Your task to perform on an android device: toggle airplane mode Image 0: 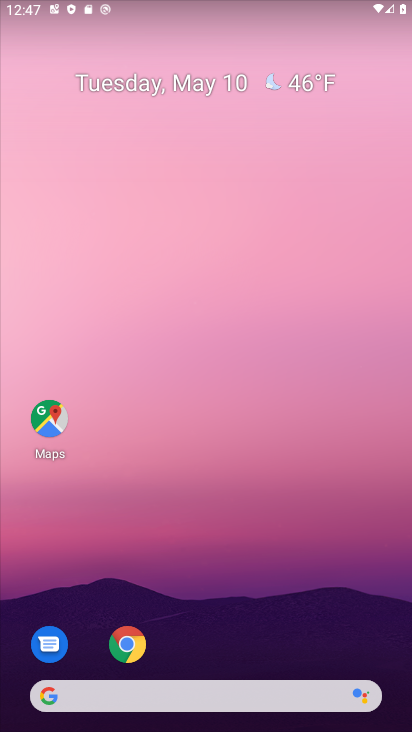
Step 0: drag from (299, 607) to (254, 291)
Your task to perform on an android device: toggle airplane mode Image 1: 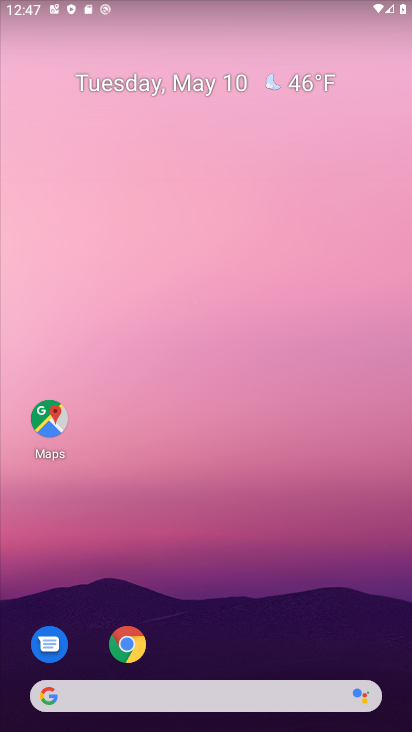
Step 1: drag from (262, 576) to (255, 190)
Your task to perform on an android device: toggle airplane mode Image 2: 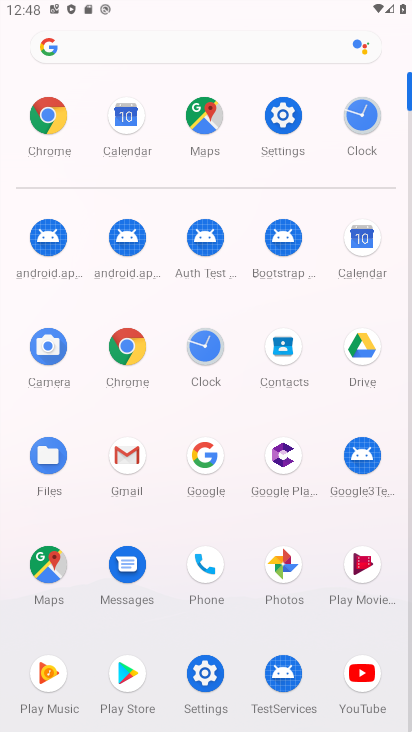
Step 2: click (291, 133)
Your task to perform on an android device: toggle airplane mode Image 3: 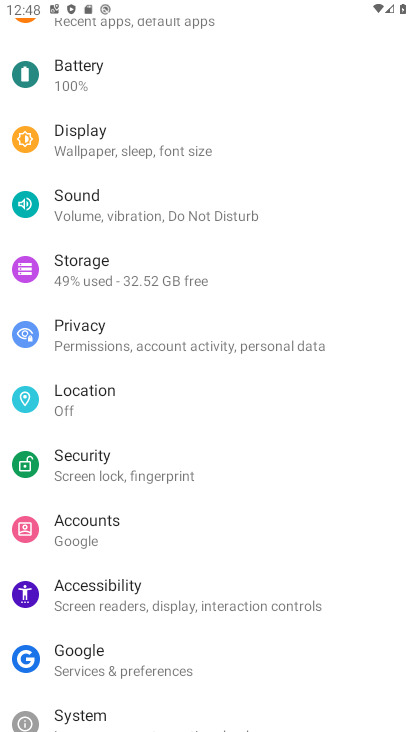
Step 3: drag from (170, 140) to (241, 616)
Your task to perform on an android device: toggle airplane mode Image 4: 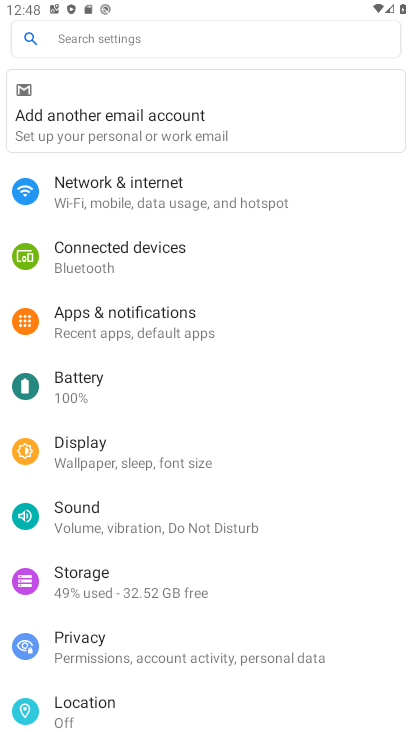
Step 4: click (172, 193)
Your task to perform on an android device: toggle airplane mode Image 5: 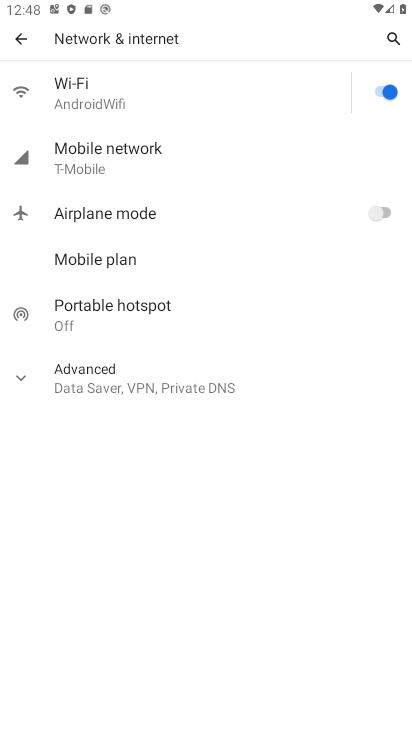
Step 5: click (368, 221)
Your task to perform on an android device: toggle airplane mode Image 6: 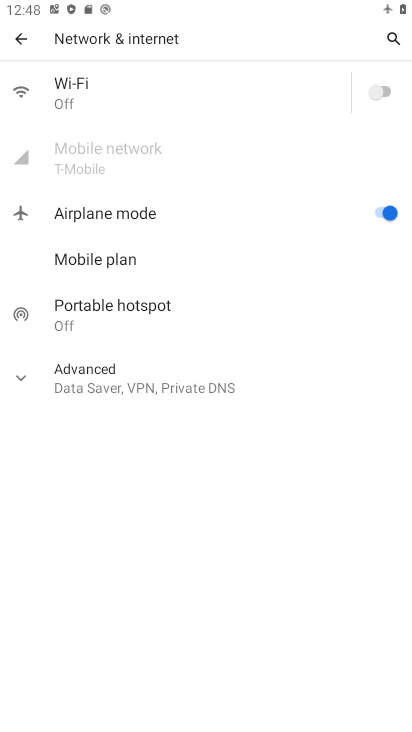
Step 6: task complete